Your task to perform on an android device: What's on my calendar today? Image 0: 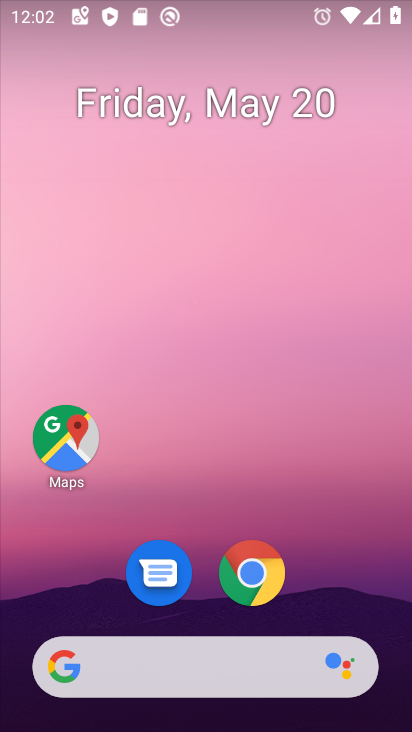
Step 0: drag from (218, 627) to (269, 96)
Your task to perform on an android device: What's on my calendar today? Image 1: 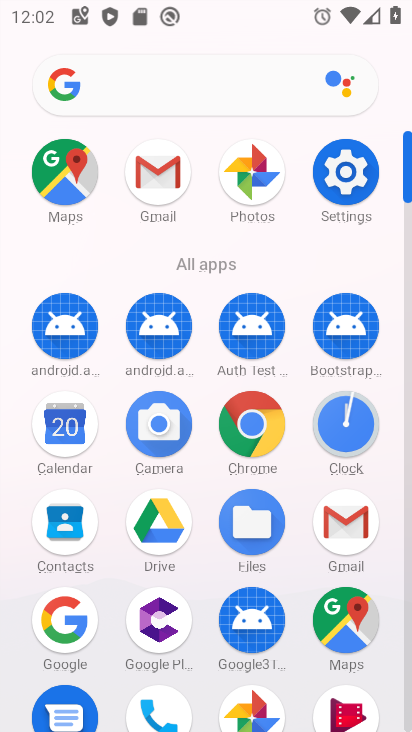
Step 1: click (67, 442)
Your task to perform on an android device: What's on my calendar today? Image 2: 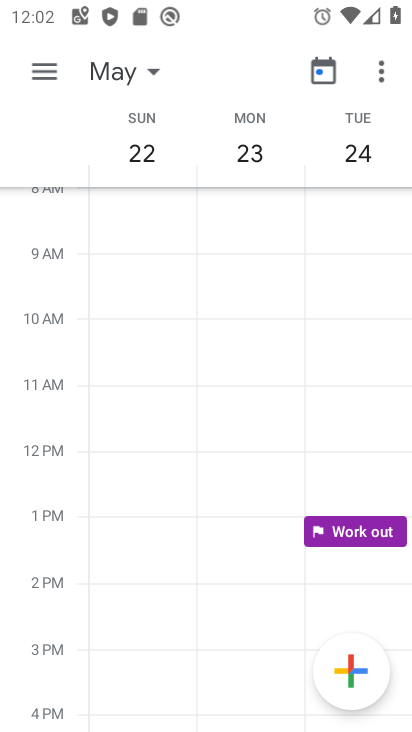
Step 2: drag from (148, 154) to (388, 158)
Your task to perform on an android device: What's on my calendar today? Image 3: 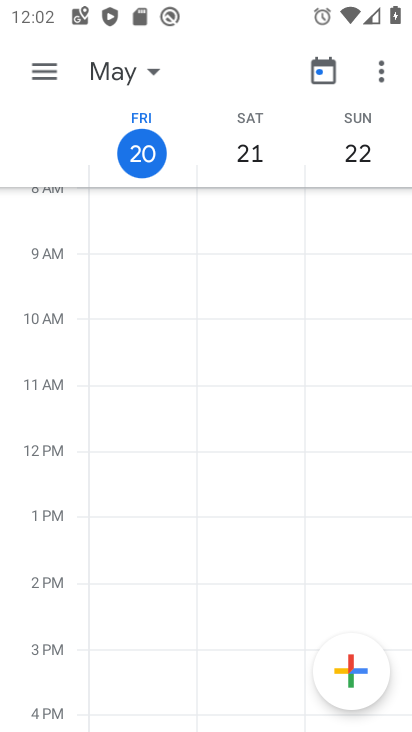
Step 3: click (40, 70)
Your task to perform on an android device: What's on my calendar today? Image 4: 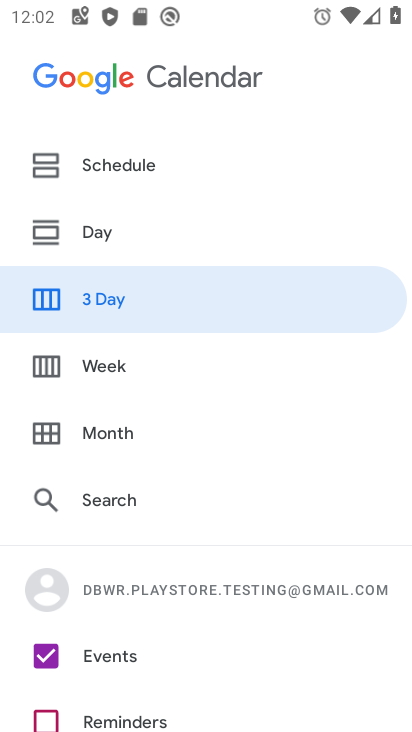
Step 4: click (110, 237)
Your task to perform on an android device: What's on my calendar today? Image 5: 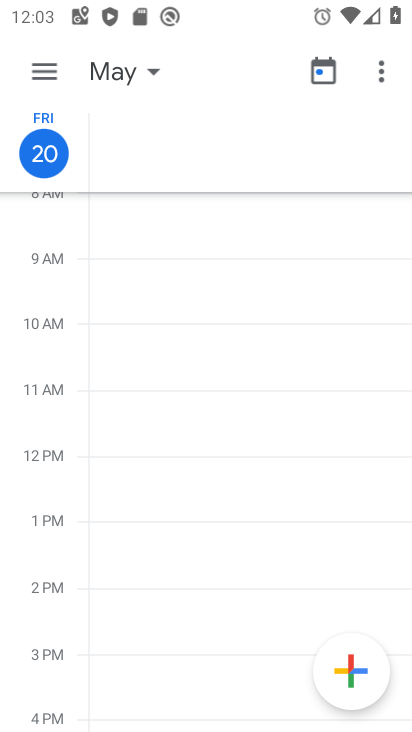
Step 5: task complete